Your task to perform on an android device: turn off wifi Image 0: 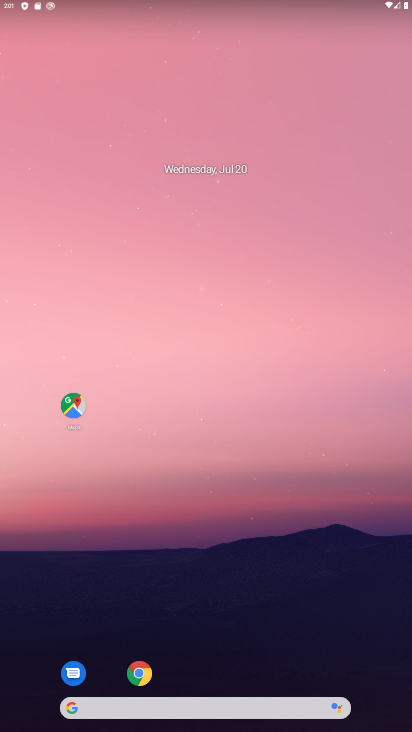
Step 0: drag from (202, 583) to (212, 358)
Your task to perform on an android device: turn off wifi Image 1: 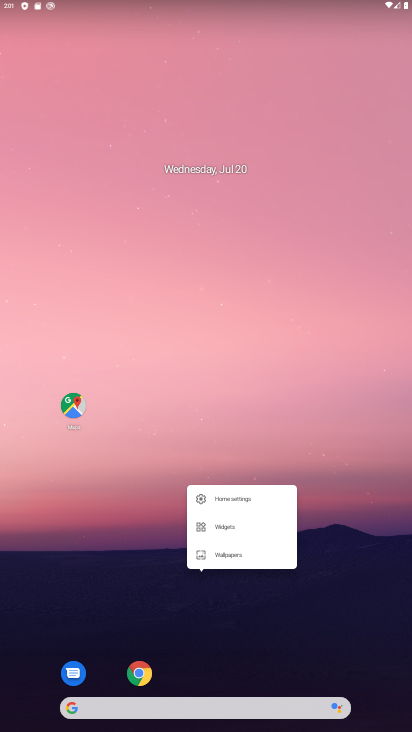
Step 1: drag from (158, 7) to (282, 538)
Your task to perform on an android device: turn off wifi Image 2: 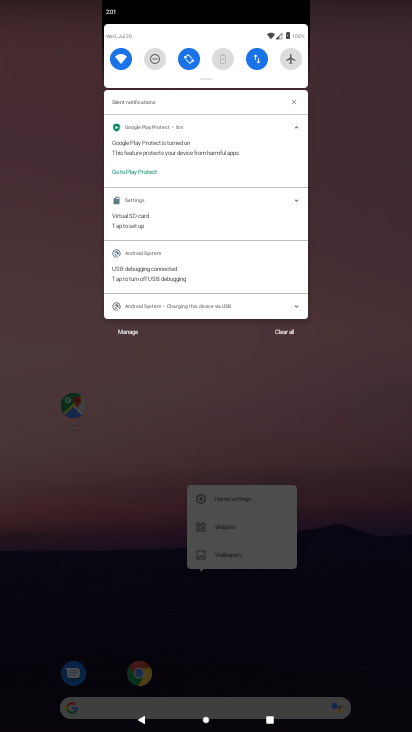
Step 2: click (124, 57)
Your task to perform on an android device: turn off wifi Image 3: 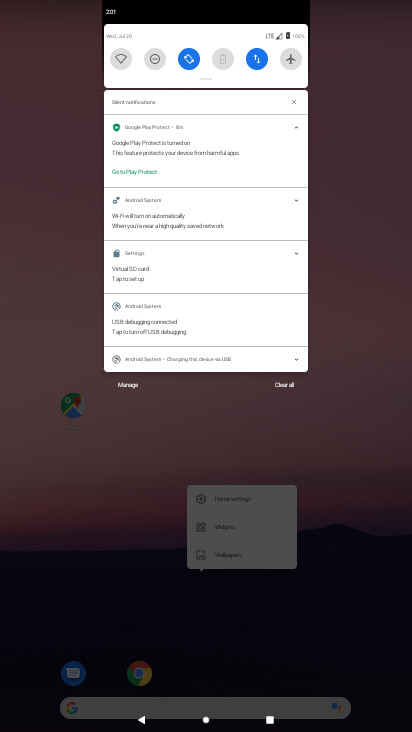
Step 3: task complete